Your task to perform on an android device: Open internet settings Image 0: 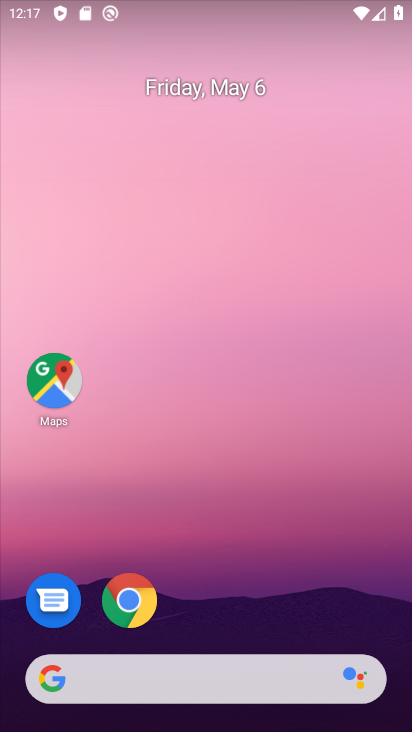
Step 0: drag from (319, 625) to (360, 0)
Your task to perform on an android device: Open internet settings Image 1: 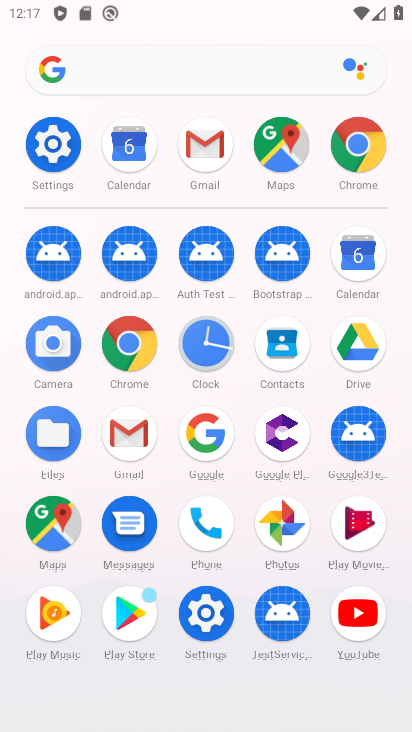
Step 1: click (55, 159)
Your task to perform on an android device: Open internet settings Image 2: 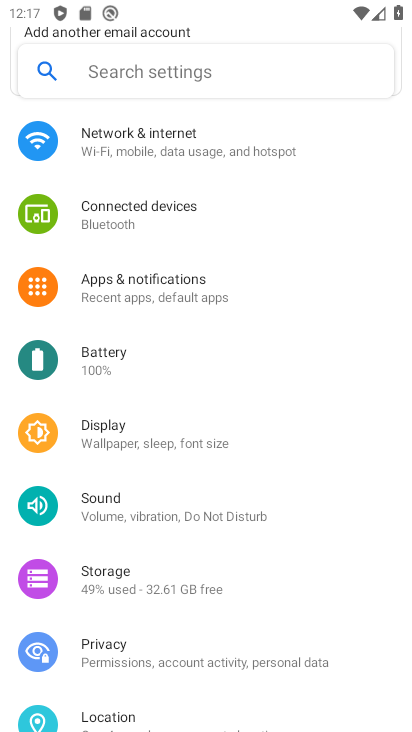
Step 2: click (199, 146)
Your task to perform on an android device: Open internet settings Image 3: 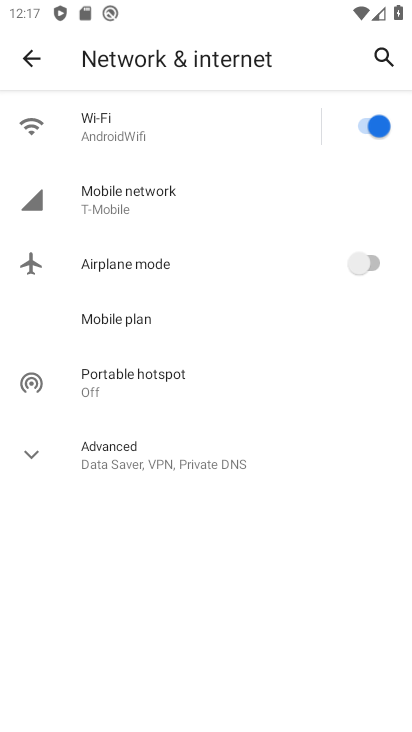
Step 3: task complete